Your task to perform on an android device: When is my next appointment? Image 0: 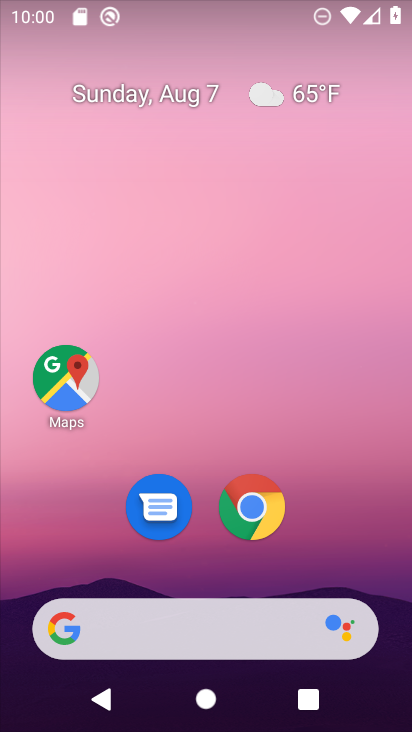
Step 0: drag from (371, 533) to (290, 101)
Your task to perform on an android device: When is my next appointment? Image 1: 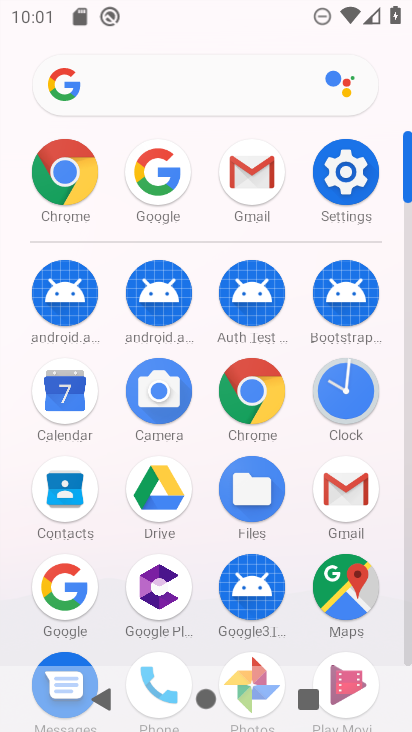
Step 1: click (62, 384)
Your task to perform on an android device: When is my next appointment? Image 2: 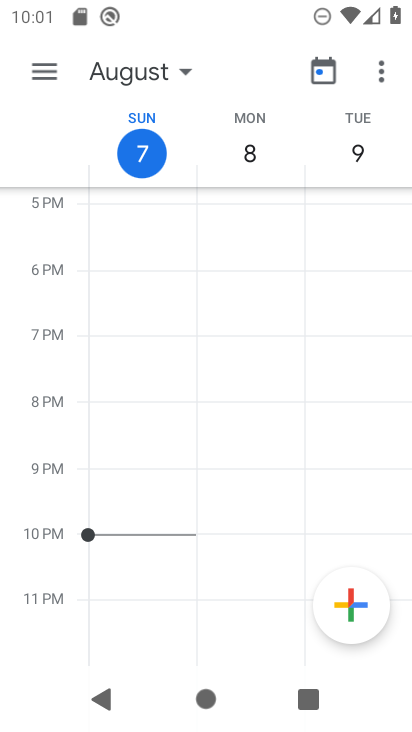
Step 2: task complete